Your task to perform on an android device: Open Android settings Image 0: 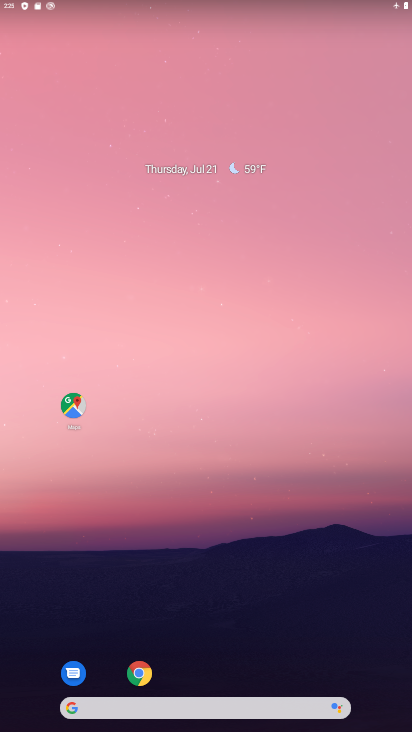
Step 0: drag from (389, 689) to (306, 174)
Your task to perform on an android device: Open Android settings Image 1: 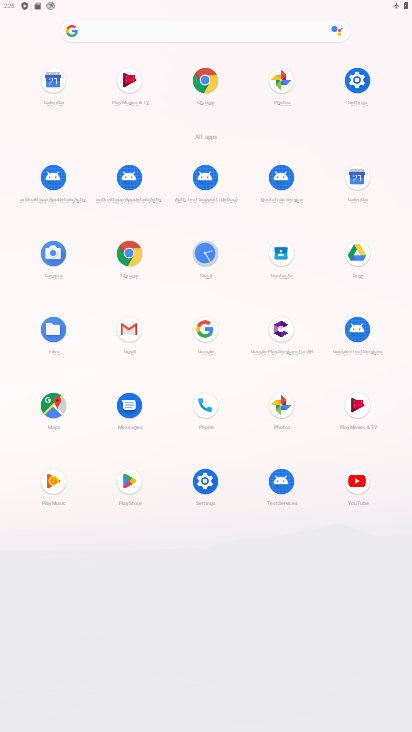
Step 1: click (205, 482)
Your task to perform on an android device: Open Android settings Image 2: 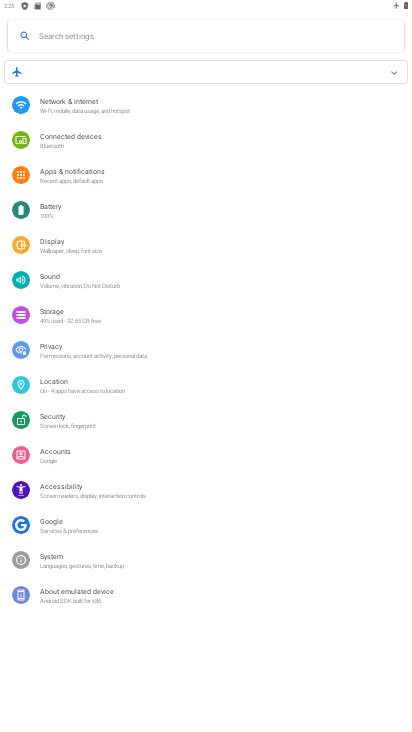
Step 2: click (62, 593)
Your task to perform on an android device: Open Android settings Image 3: 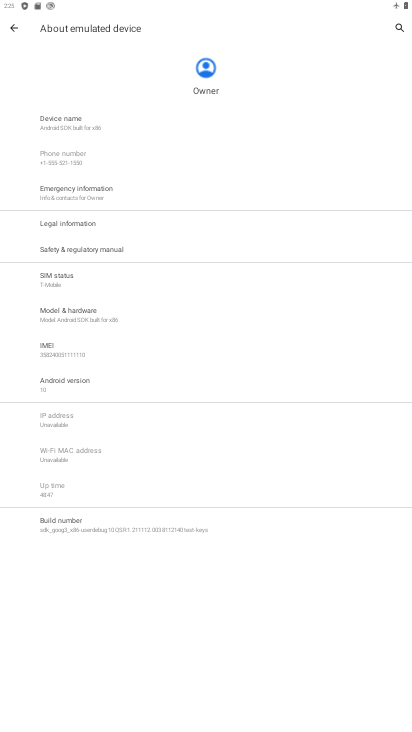
Step 3: task complete